Your task to perform on an android device: allow cookies in the chrome app Image 0: 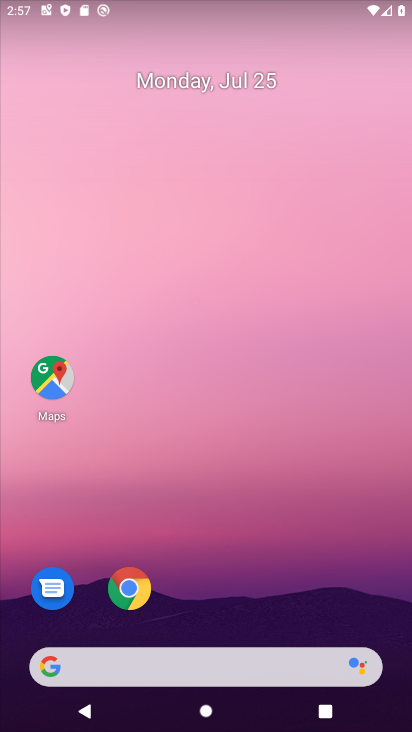
Step 0: drag from (286, 572) to (276, 91)
Your task to perform on an android device: allow cookies in the chrome app Image 1: 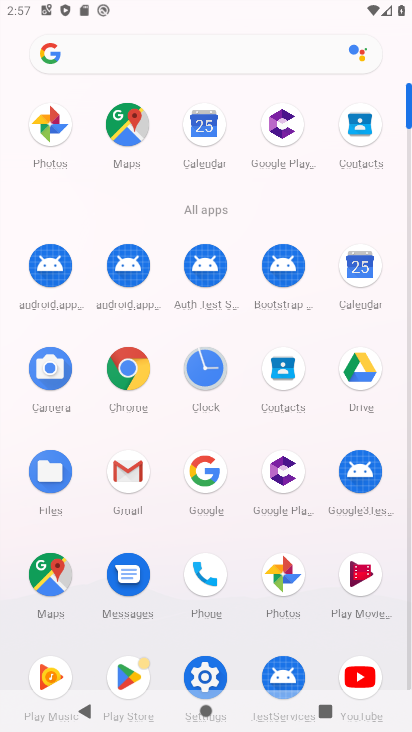
Step 1: click (127, 370)
Your task to perform on an android device: allow cookies in the chrome app Image 2: 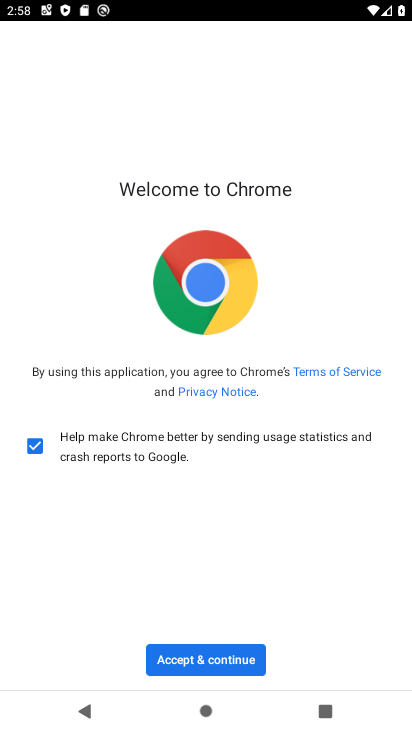
Step 2: click (220, 647)
Your task to perform on an android device: allow cookies in the chrome app Image 3: 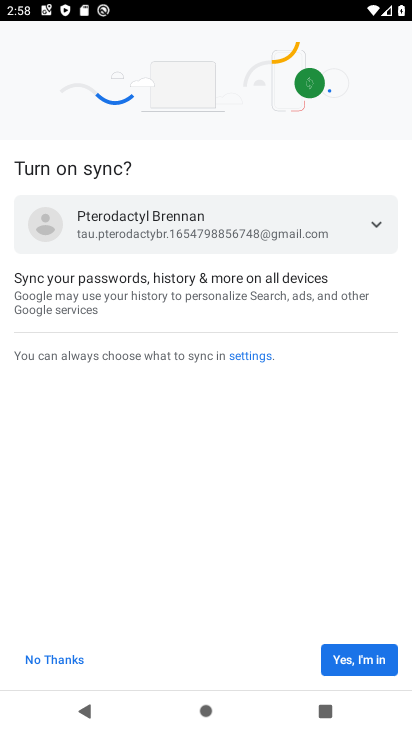
Step 3: click (372, 663)
Your task to perform on an android device: allow cookies in the chrome app Image 4: 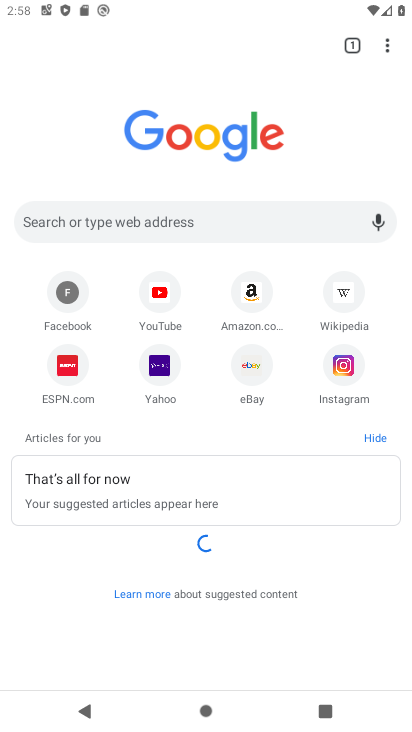
Step 4: drag from (389, 45) to (238, 373)
Your task to perform on an android device: allow cookies in the chrome app Image 5: 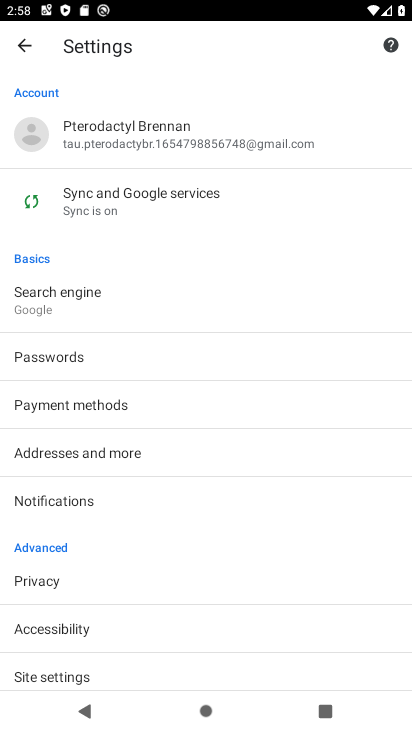
Step 5: click (65, 677)
Your task to perform on an android device: allow cookies in the chrome app Image 6: 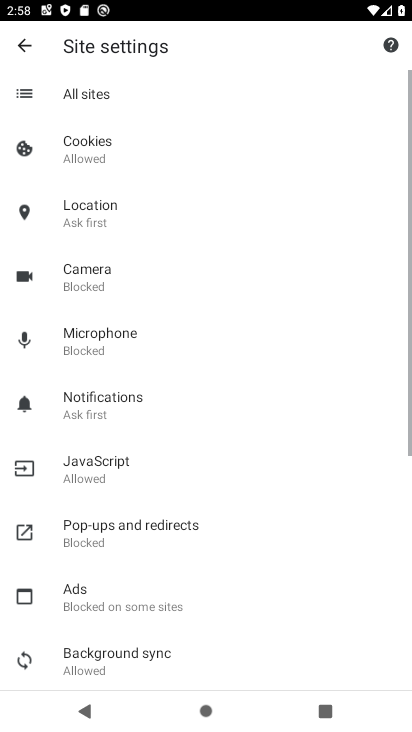
Step 6: click (145, 146)
Your task to perform on an android device: allow cookies in the chrome app Image 7: 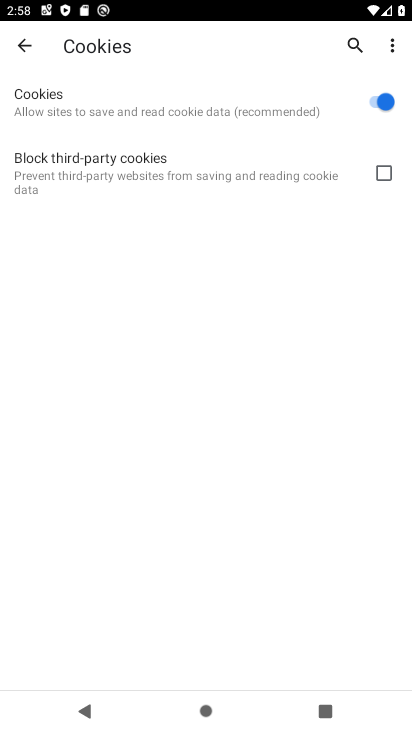
Step 7: task complete